Your task to perform on an android device: toggle location history Image 0: 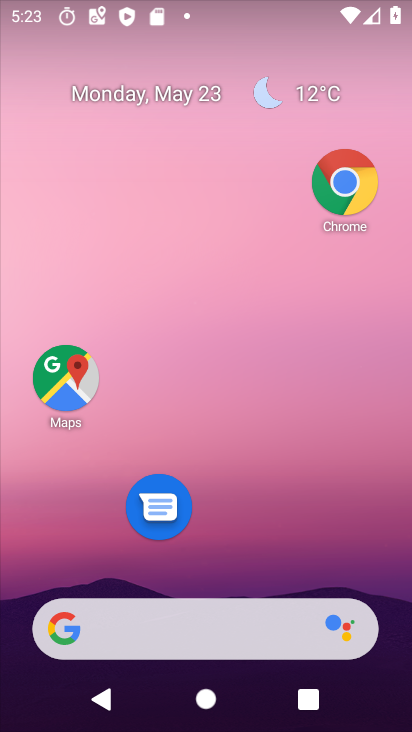
Step 0: drag from (178, 591) to (355, 20)
Your task to perform on an android device: toggle location history Image 1: 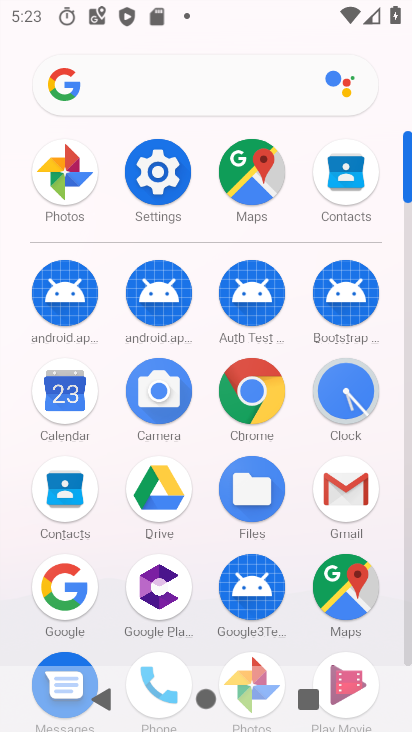
Step 1: click (163, 177)
Your task to perform on an android device: toggle location history Image 2: 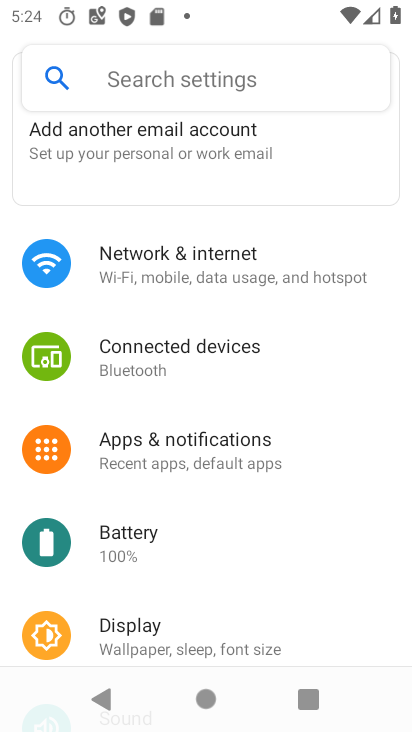
Step 2: drag from (138, 577) to (199, 305)
Your task to perform on an android device: toggle location history Image 3: 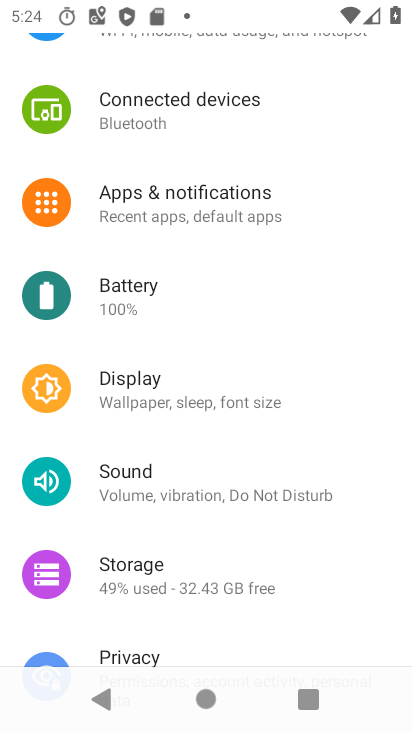
Step 3: drag from (40, 645) to (179, 209)
Your task to perform on an android device: toggle location history Image 4: 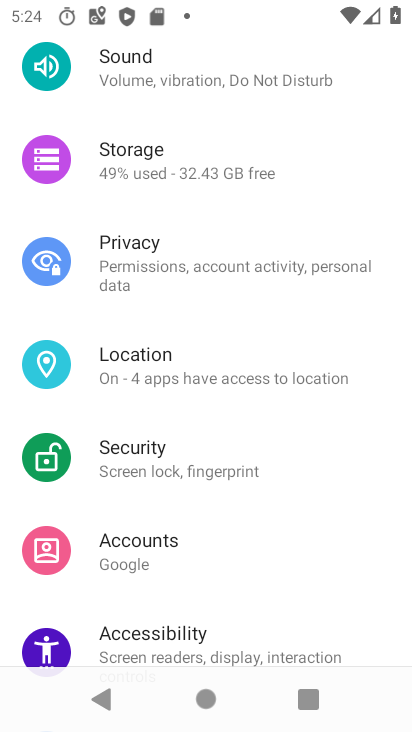
Step 4: click (187, 353)
Your task to perform on an android device: toggle location history Image 5: 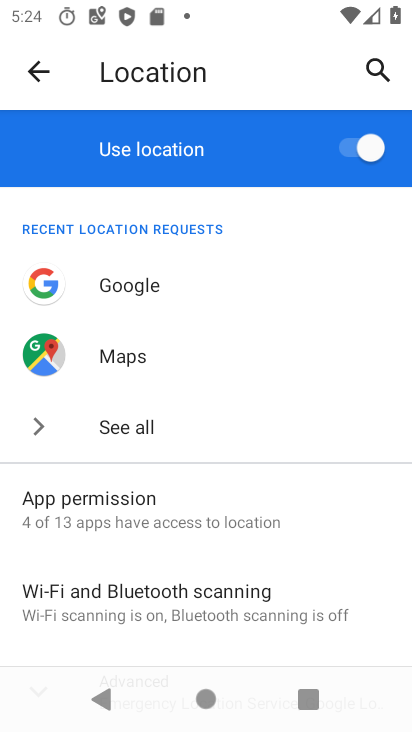
Step 5: drag from (176, 643) to (251, 435)
Your task to perform on an android device: toggle location history Image 6: 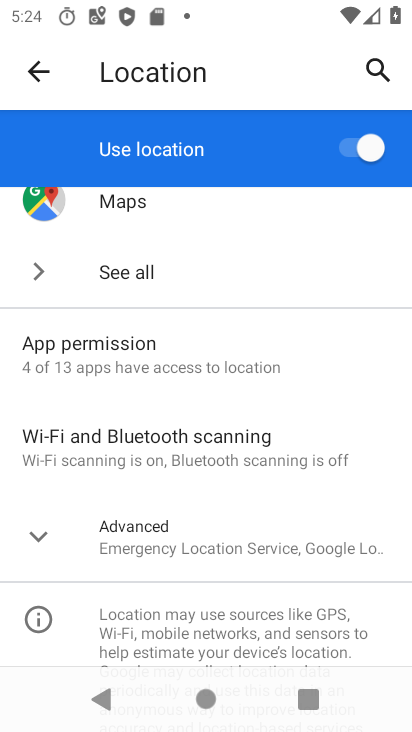
Step 6: click (185, 550)
Your task to perform on an android device: toggle location history Image 7: 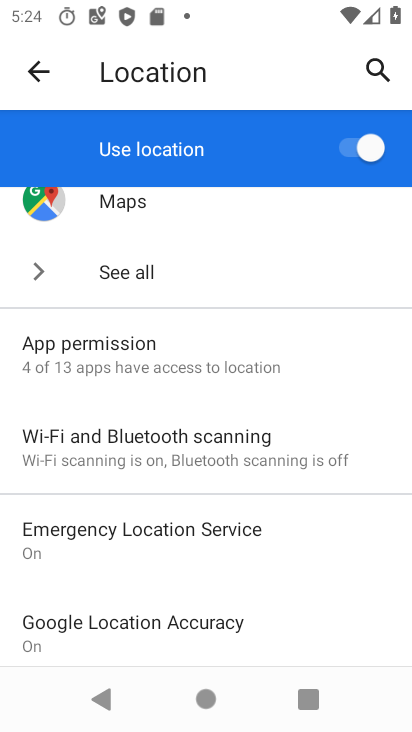
Step 7: drag from (170, 604) to (305, 219)
Your task to perform on an android device: toggle location history Image 8: 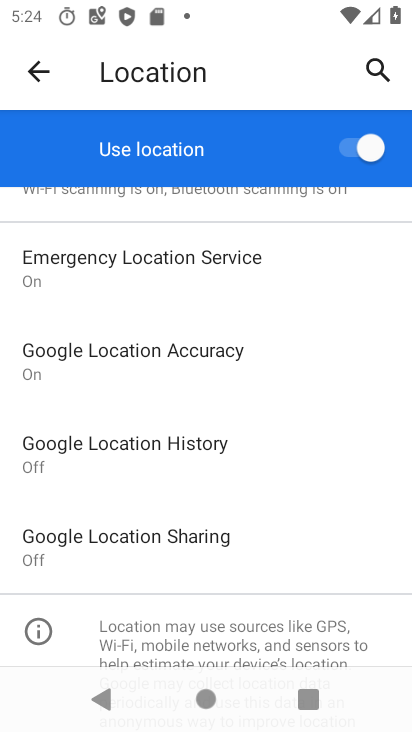
Step 8: click (78, 469)
Your task to perform on an android device: toggle location history Image 9: 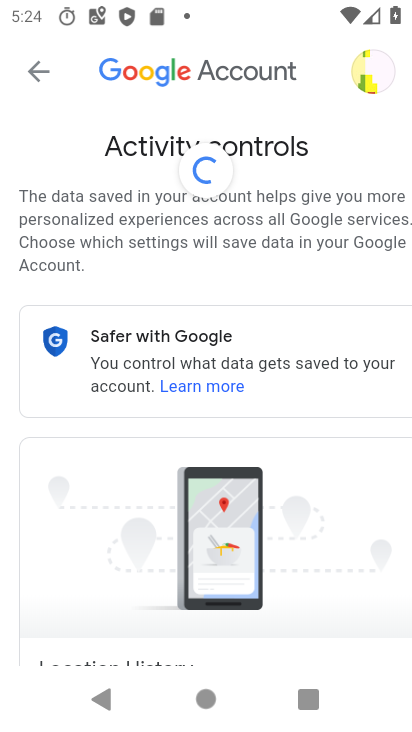
Step 9: drag from (151, 575) to (365, 66)
Your task to perform on an android device: toggle location history Image 10: 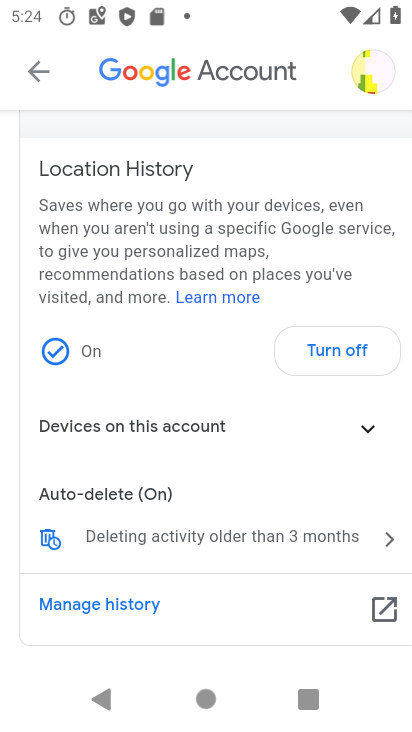
Step 10: click (332, 358)
Your task to perform on an android device: toggle location history Image 11: 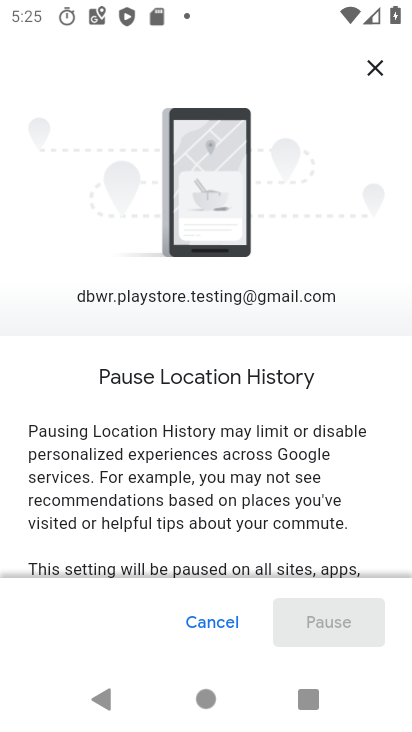
Step 11: drag from (229, 509) to (354, 24)
Your task to perform on an android device: toggle location history Image 12: 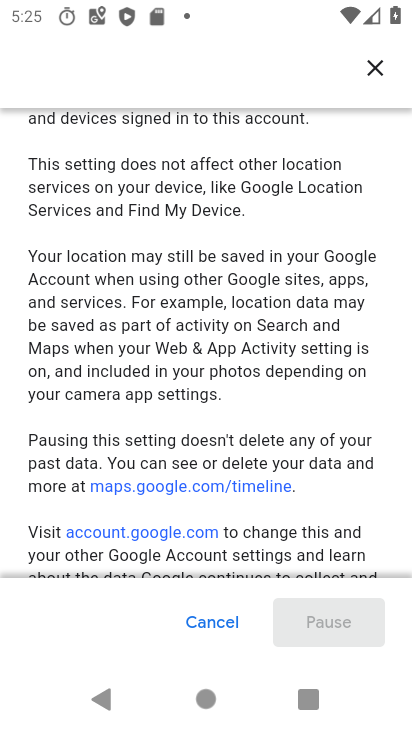
Step 12: drag from (132, 496) to (206, 212)
Your task to perform on an android device: toggle location history Image 13: 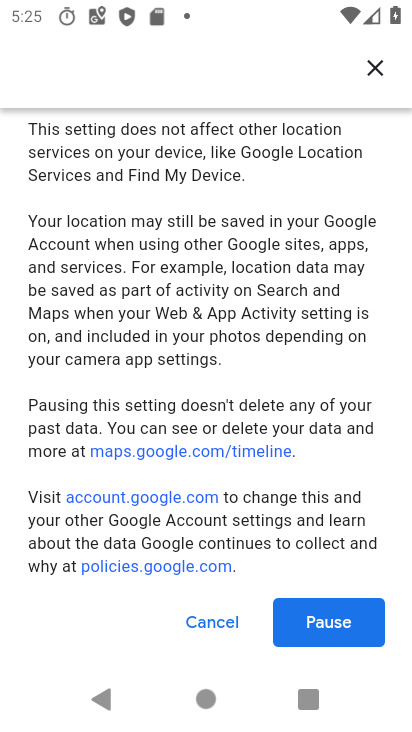
Step 13: click (346, 631)
Your task to perform on an android device: toggle location history Image 14: 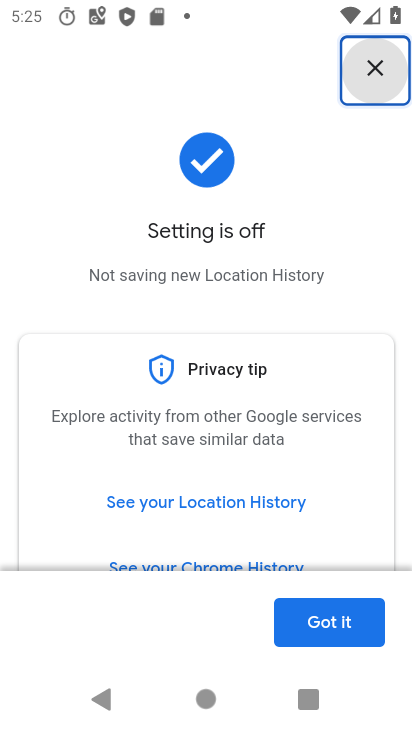
Step 14: click (346, 631)
Your task to perform on an android device: toggle location history Image 15: 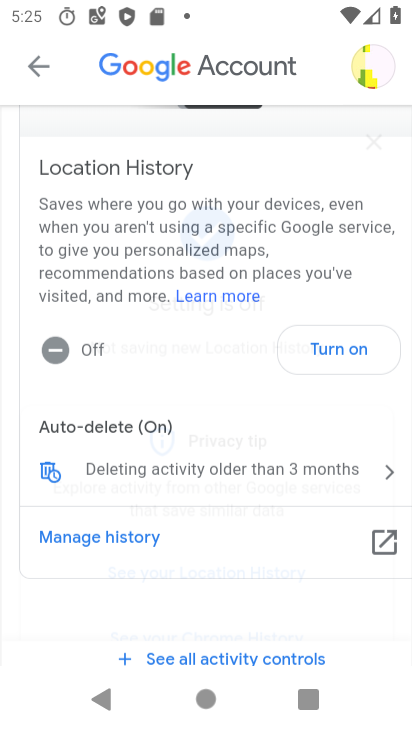
Step 15: task complete